Your task to perform on an android device: turn off smart reply in the gmail app Image 0: 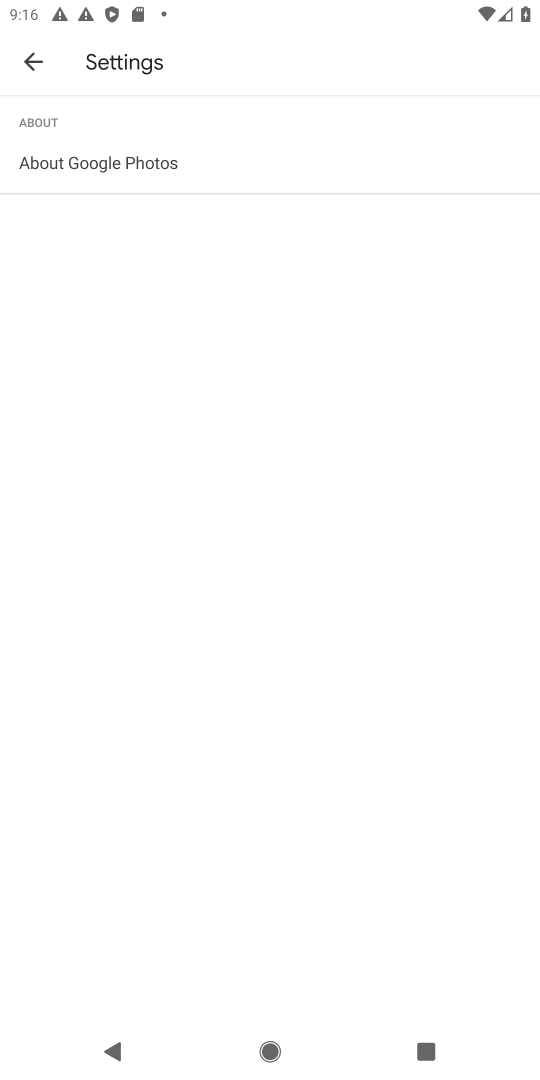
Step 0: press home button
Your task to perform on an android device: turn off smart reply in the gmail app Image 1: 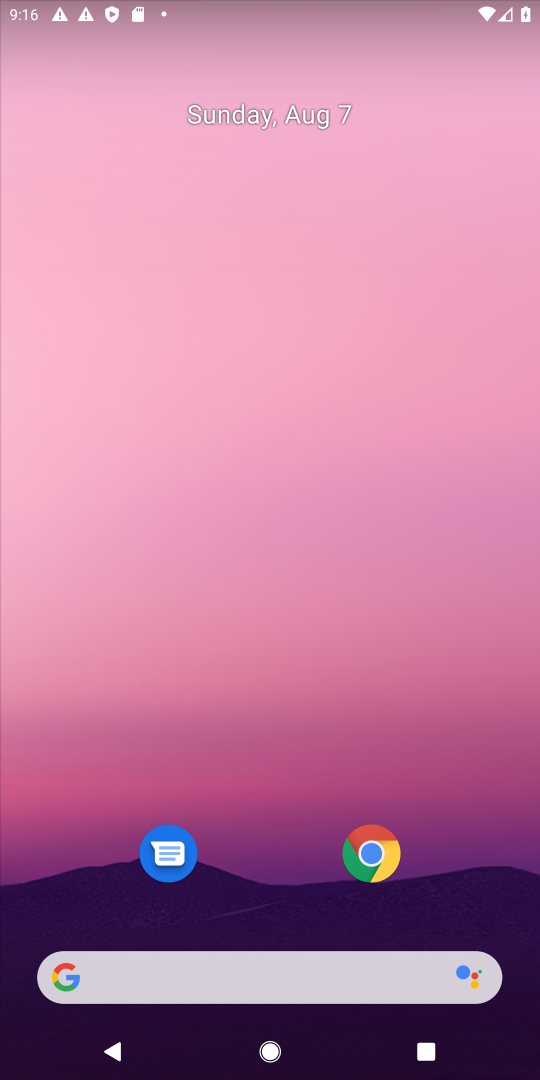
Step 1: drag from (281, 869) to (296, 180)
Your task to perform on an android device: turn off smart reply in the gmail app Image 2: 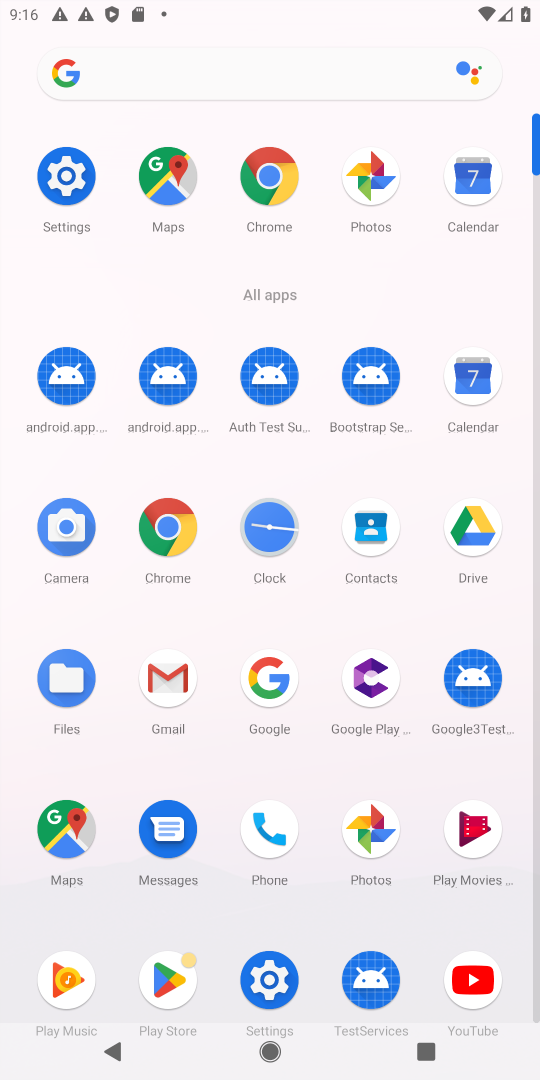
Step 2: click (158, 683)
Your task to perform on an android device: turn off smart reply in the gmail app Image 3: 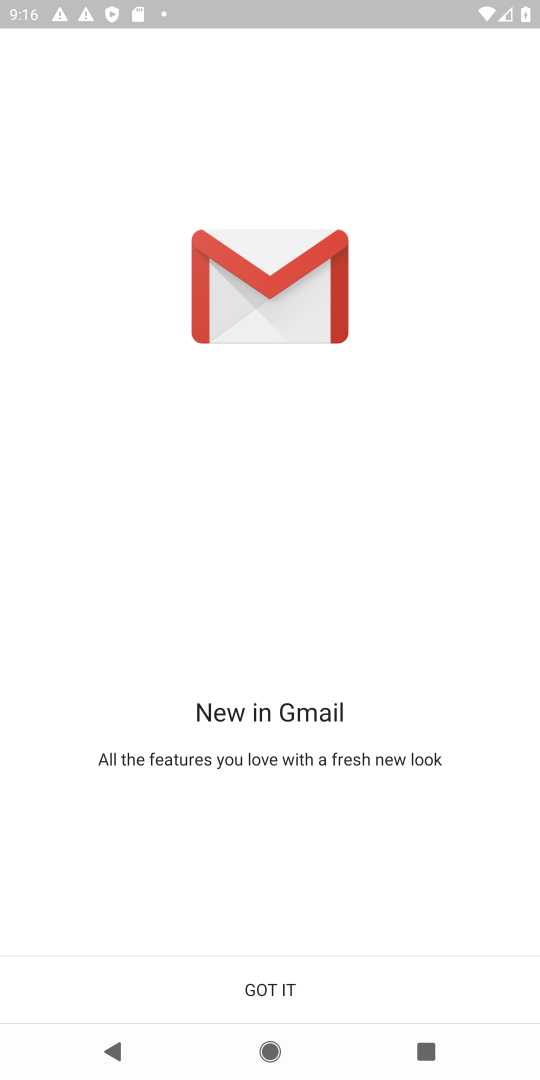
Step 3: click (258, 986)
Your task to perform on an android device: turn off smart reply in the gmail app Image 4: 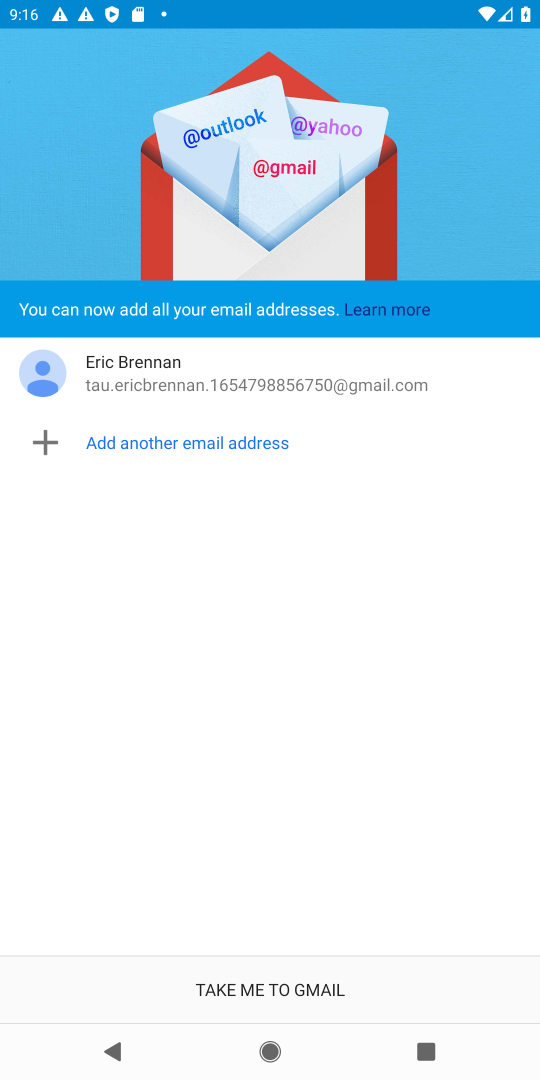
Step 4: click (261, 985)
Your task to perform on an android device: turn off smart reply in the gmail app Image 5: 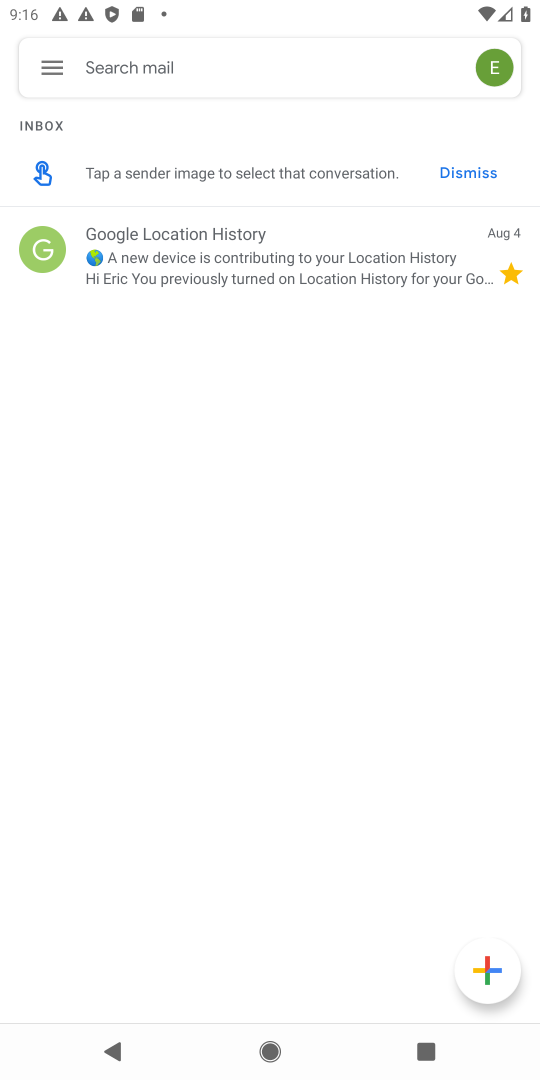
Step 5: click (53, 64)
Your task to perform on an android device: turn off smart reply in the gmail app Image 6: 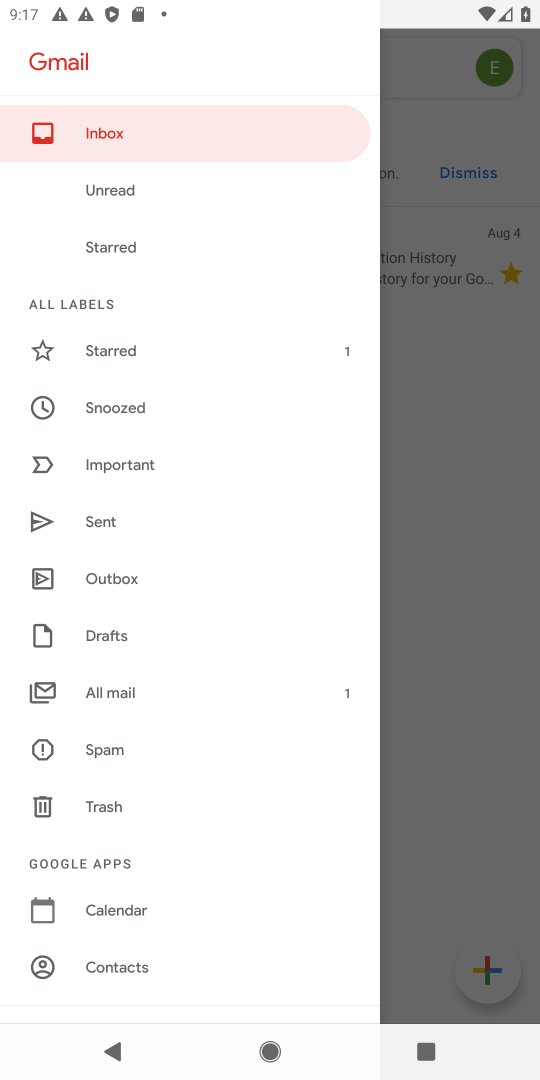
Step 6: drag from (242, 803) to (232, 581)
Your task to perform on an android device: turn off smart reply in the gmail app Image 7: 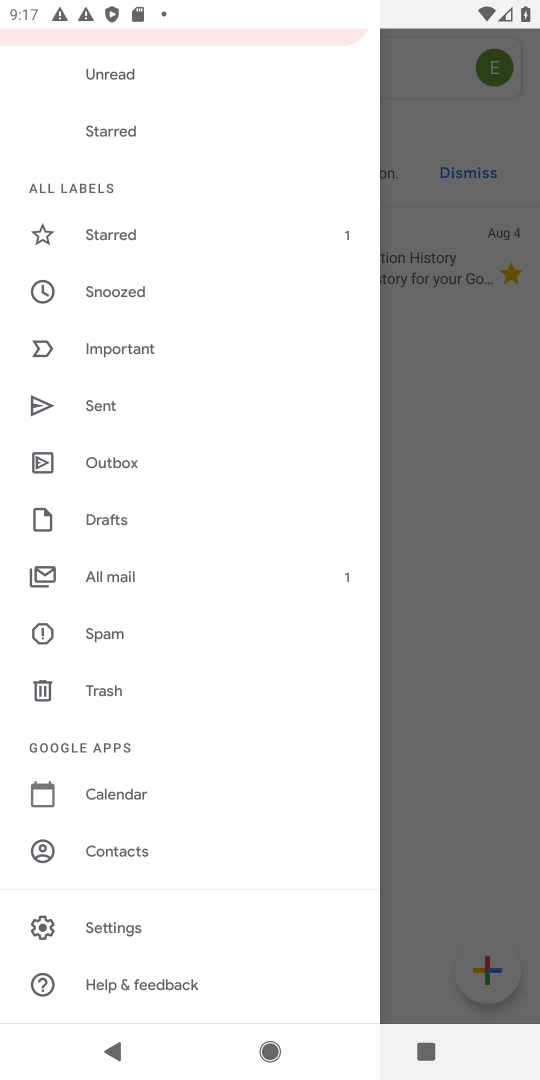
Step 7: click (199, 923)
Your task to perform on an android device: turn off smart reply in the gmail app Image 8: 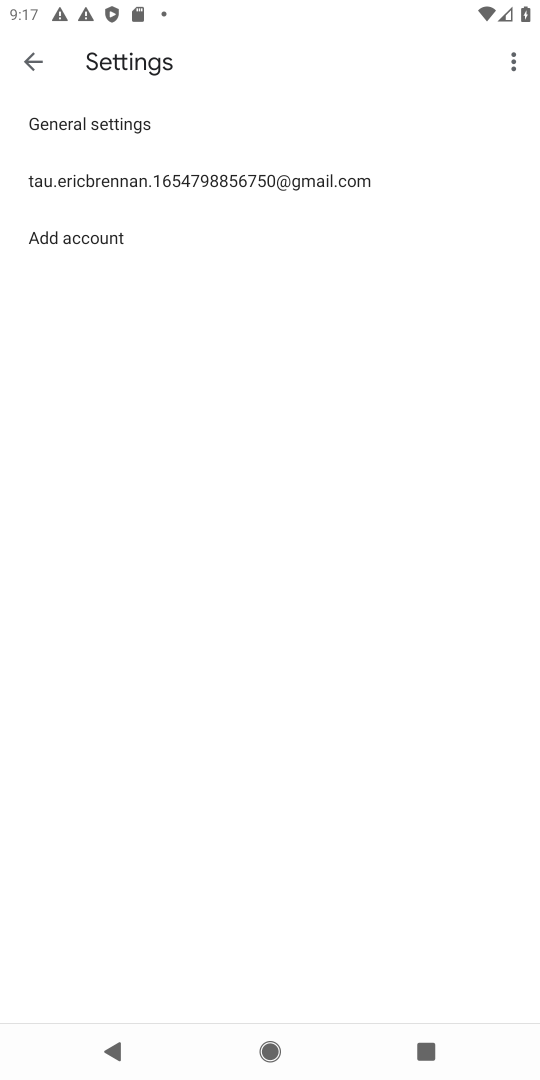
Step 8: click (188, 183)
Your task to perform on an android device: turn off smart reply in the gmail app Image 9: 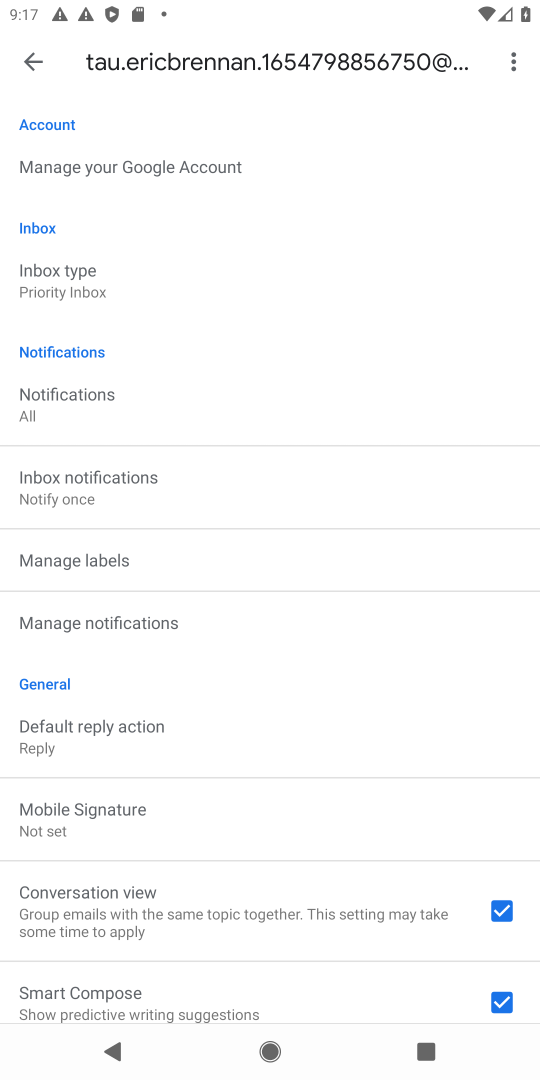
Step 9: drag from (333, 643) to (346, 498)
Your task to perform on an android device: turn off smart reply in the gmail app Image 10: 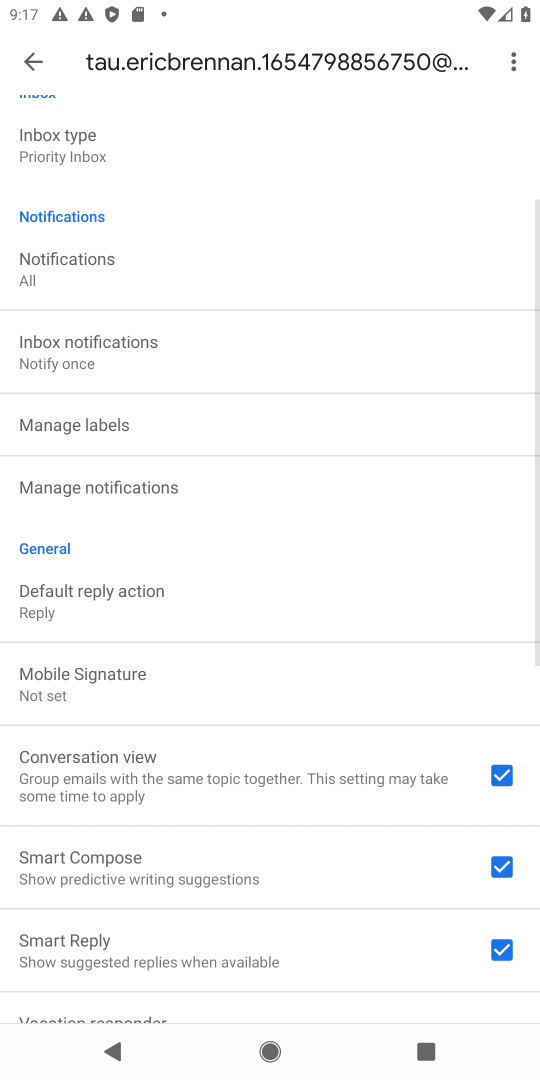
Step 10: drag from (321, 665) to (331, 459)
Your task to perform on an android device: turn off smart reply in the gmail app Image 11: 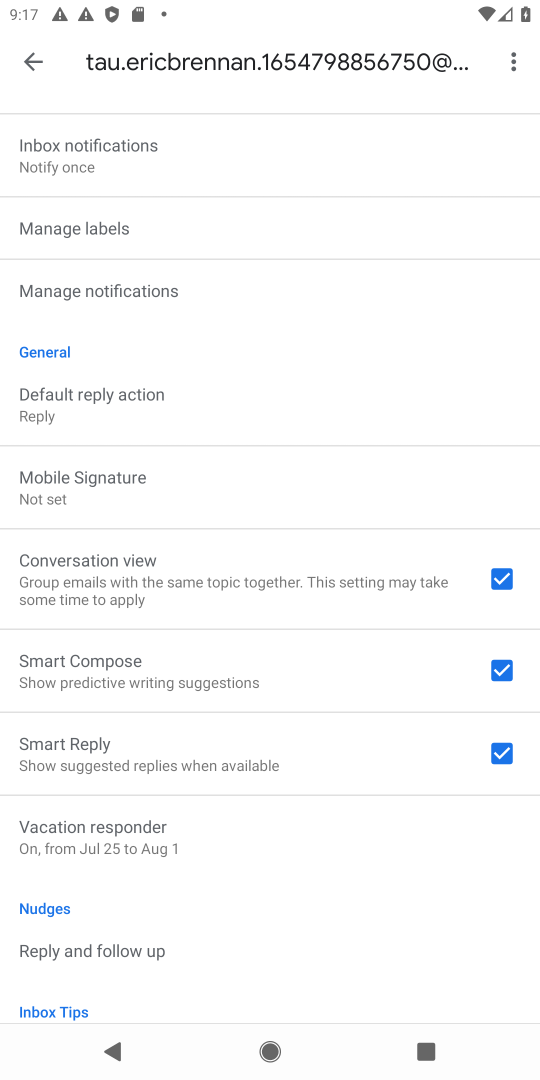
Step 11: click (489, 753)
Your task to perform on an android device: turn off smart reply in the gmail app Image 12: 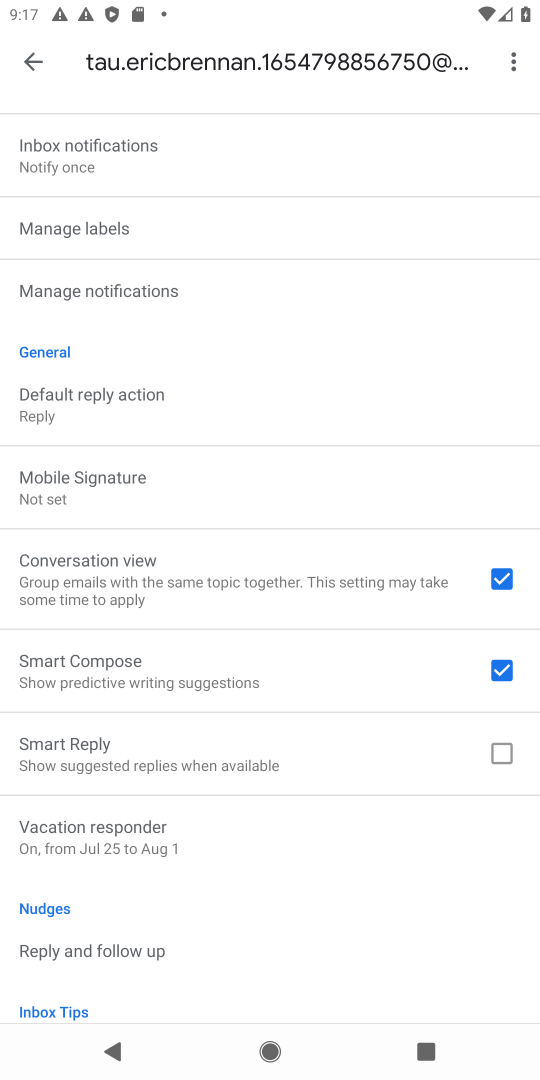
Step 12: task complete